Your task to perform on an android device: clear all cookies in the chrome app Image 0: 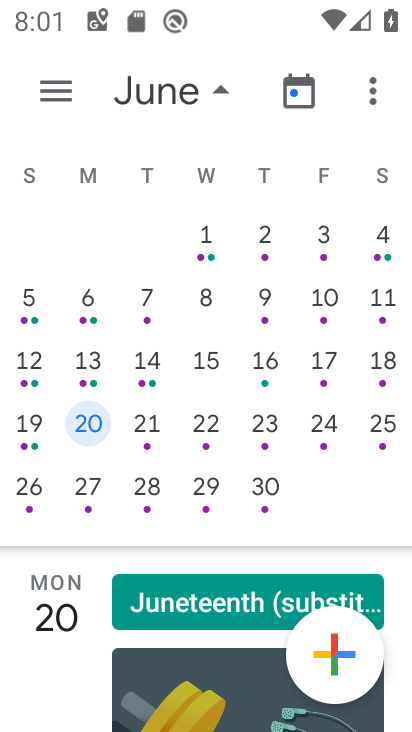
Step 0: press back button
Your task to perform on an android device: clear all cookies in the chrome app Image 1: 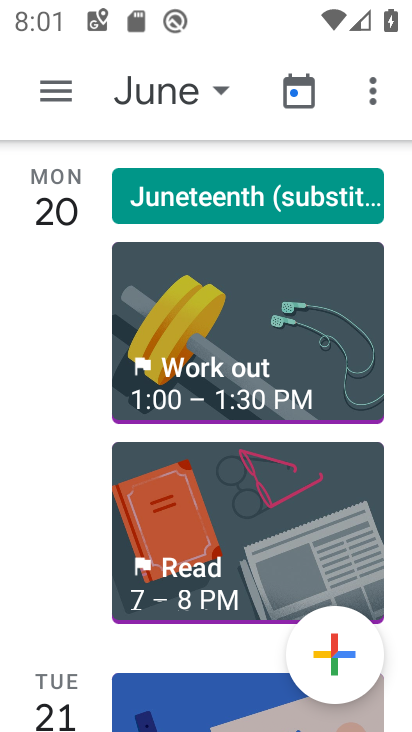
Step 1: press back button
Your task to perform on an android device: clear all cookies in the chrome app Image 2: 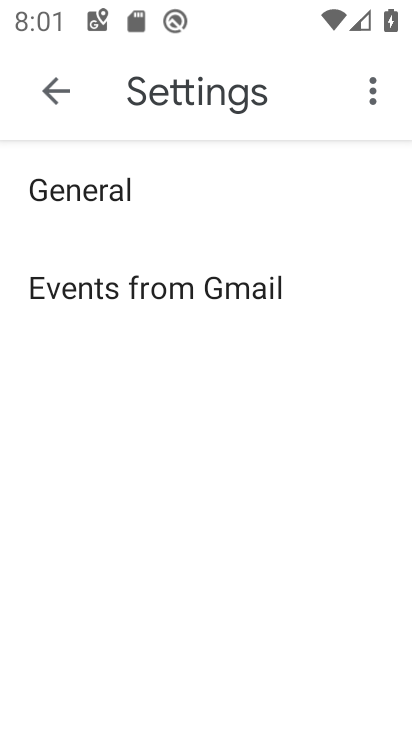
Step 2: press back button
Your task to perform on an android device: clear all cookies in the chrome app Image 3: 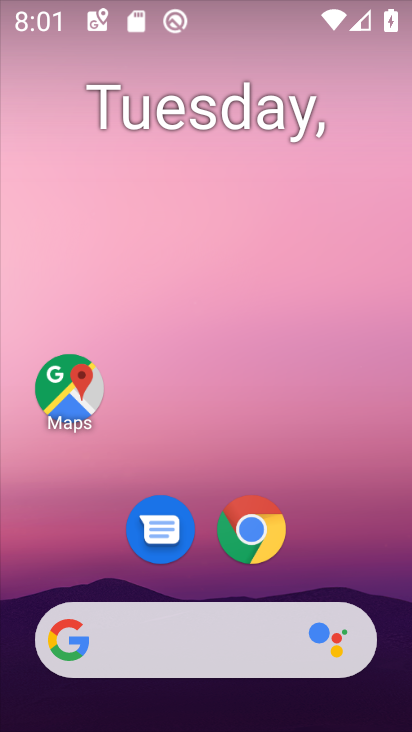
Step 3: click (268, 524)
Your task to perform on an android device: clear all cookies in the chrome app Image 4: 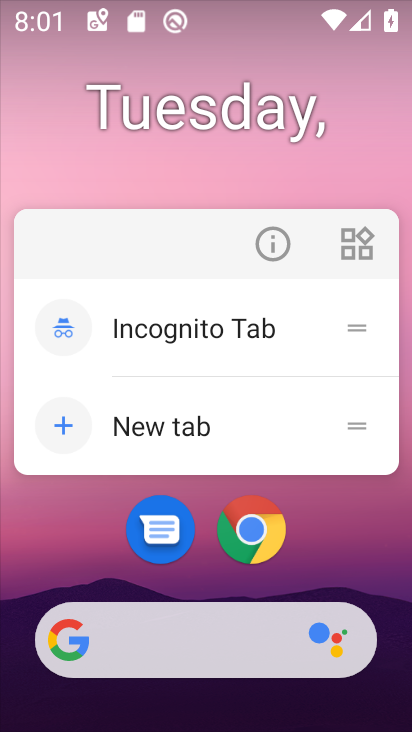
Step 4: click (265, 521)
Your task to perform on an android device: clear all cookies in the chrome app Image 5: 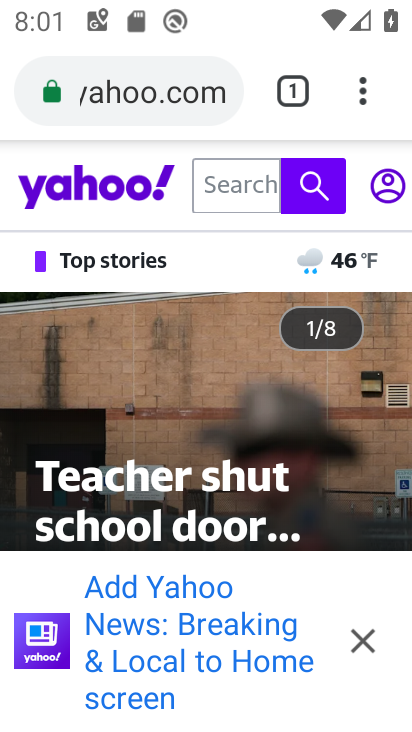
Step 5: drag from (355, 87) to (98, 508)
Your task to perform on an android device: clear all cookies in the chrome app Image 6: 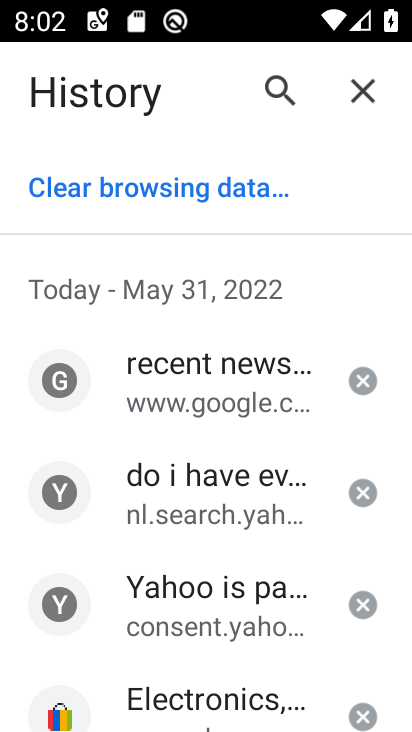
Step 6: click (190, 181)
Your task to perform on an android device: clear all cookies in the chrome app Image 7: 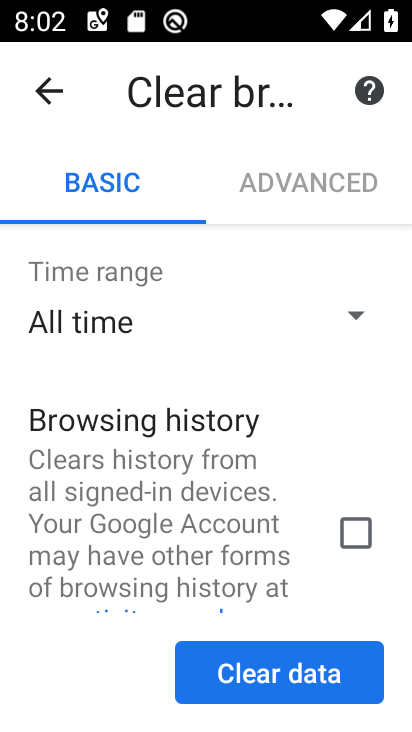
Step 7: drag from (183, 571) to (298, 96)
Your task to perform on an android device: clear all cookies in the chrome app Image 8: 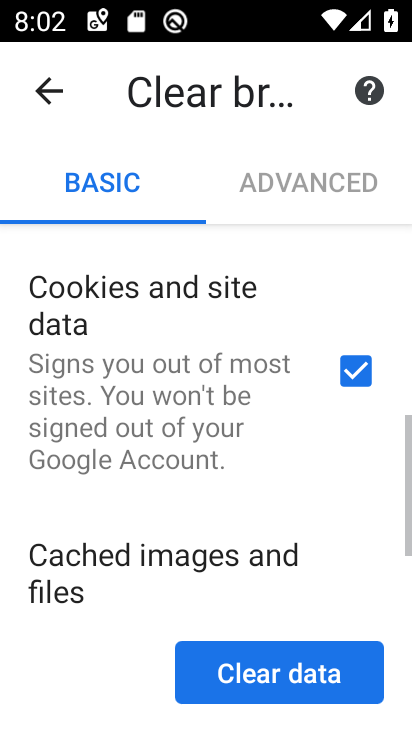
Step 8: click (296, 667)
Your task to perform on an android device: clear all cookies in the chrome app Image 9: 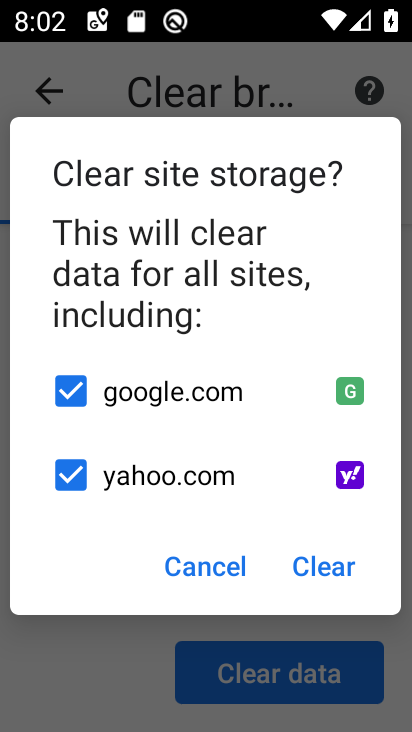
Step 9: click (323, 574)
Your task to perform on an android device: clear all cookies in the chrome app Image 10: 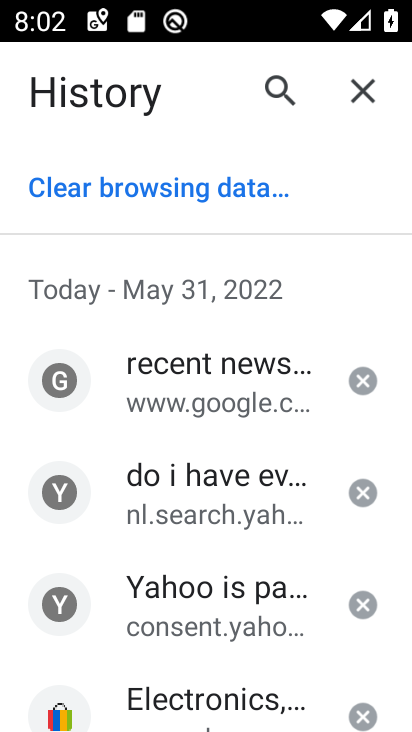
Step 10: task complete